Your task to perform on an android device: Do I have any events tomorrow? Image 0: 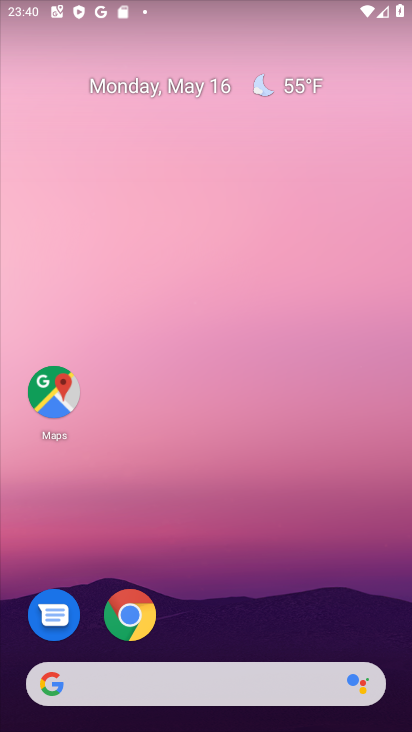
Step 0: drag from (223, 353) to (224, 70)
Your task to perform on an android device: Do I have any events tomorrow? Image 1: 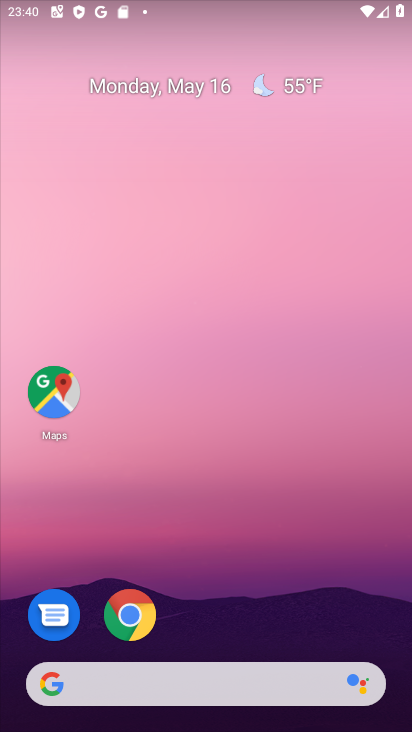
Step 1: click (216, 664)
Your task to perform on an android device: Do I have any events tomorrow? Image 2: 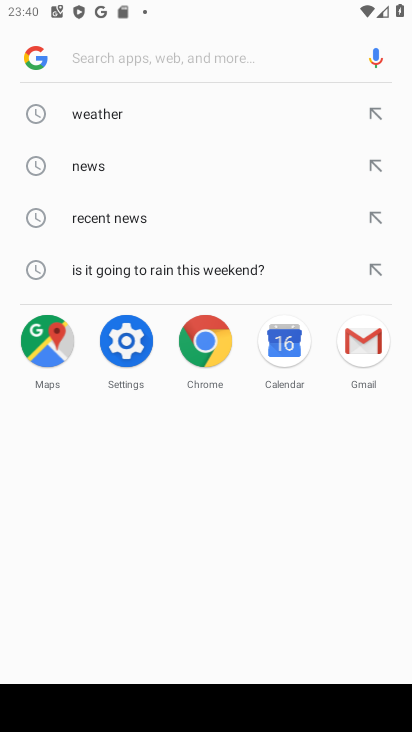
Step 2: click (148, 107)
Your task to perform on an android device: Do I have any events tomorrow? Image 3: 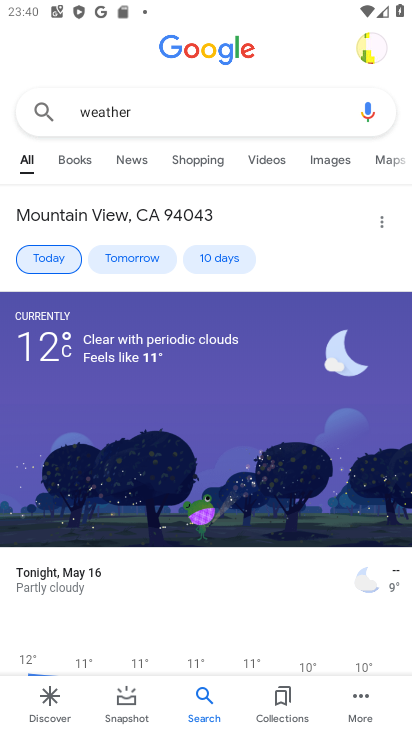
Step 3: click (110, 247)
Your task to perform on an android device: Do I have any events tomorrow? Image 4: 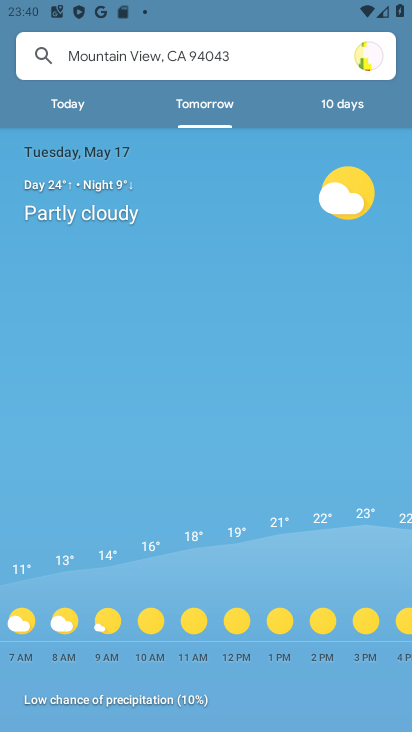
Step 4: task complete